Your task to perform on an android device: Open sound settings Image 0: 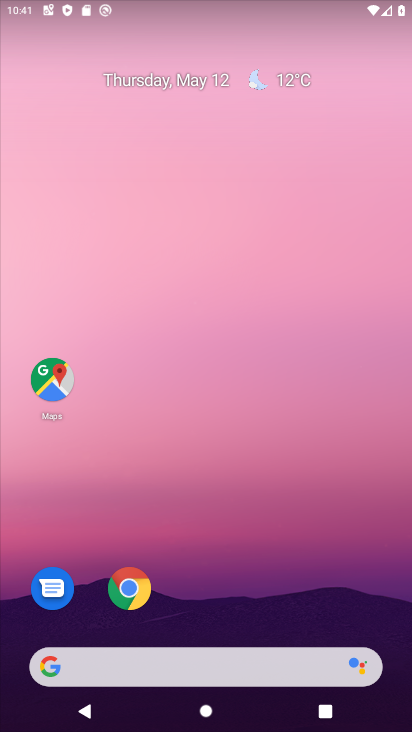
Step 0: drag from (303, 586) to (225, 117)
Your task to perform on an android device: Open sound settings Image 1: 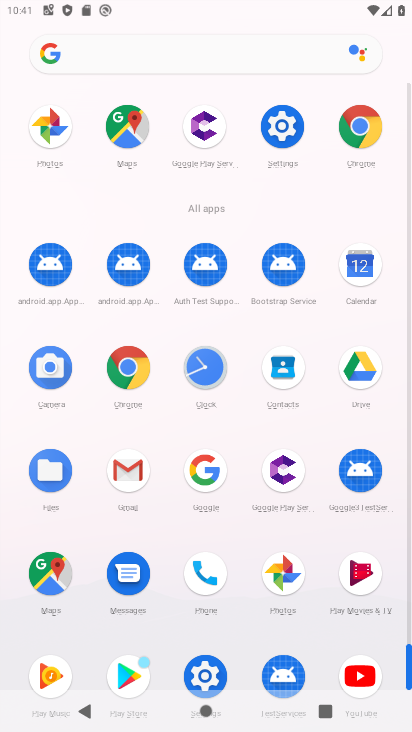
Step 1: click (280, 124)
Your task to perform on an android device: Open sound settings Image 2: 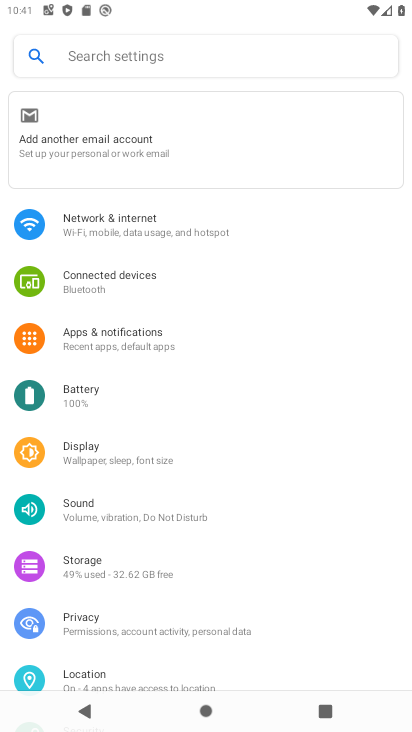
Step 2: click (107, 517)
Your task to perform on an android device: Open sound settings Image 3: 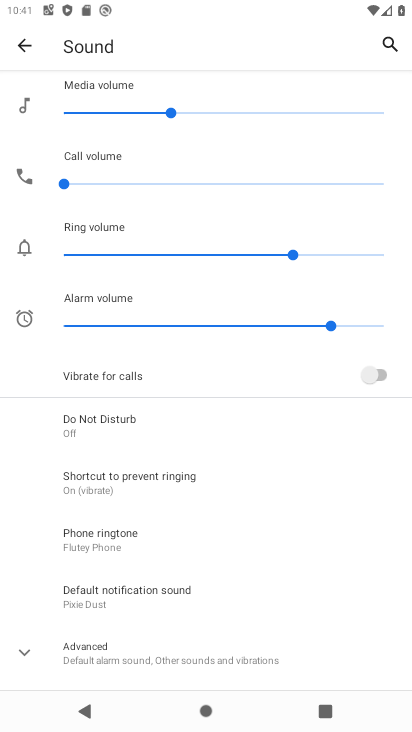
Step 3: task complete